Your task to perform on an android device: Open the web browser Image 0: 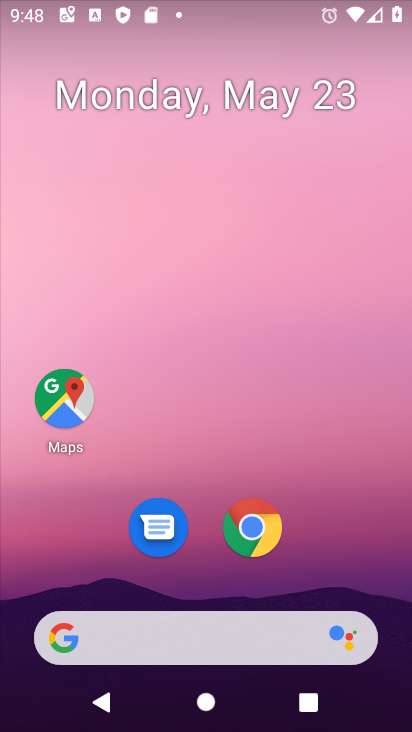
Step 0: drag from (360, 538) to (231, 59)
Your task to perform on an android device: Open the web browser Image 1: 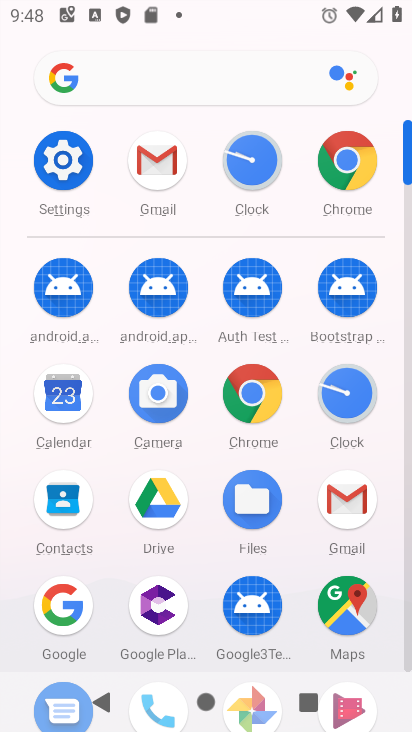
Step 1: click (251, 387)
Your task to perform on an android device: Open the web browser Image 2: 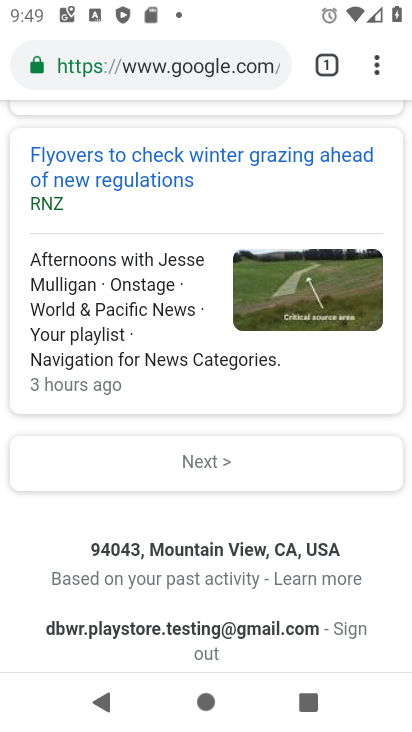
Step 2: task complete